Your task to perform on an android device: Go to Yahoo.com Image 0: 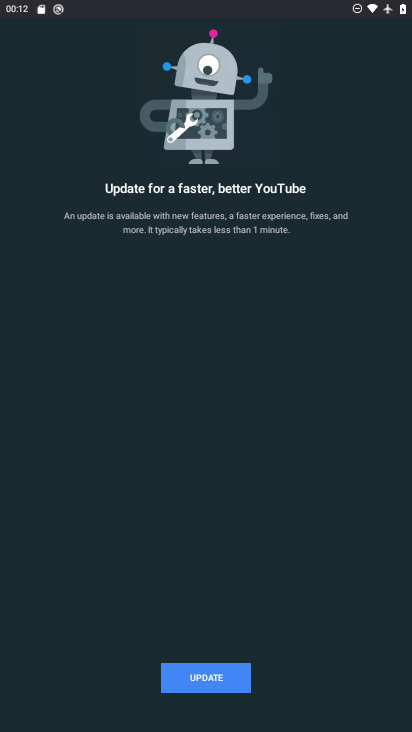
Step 0: press back button
Your task to perform on an android device: Go to Yahoo.com Image 1: 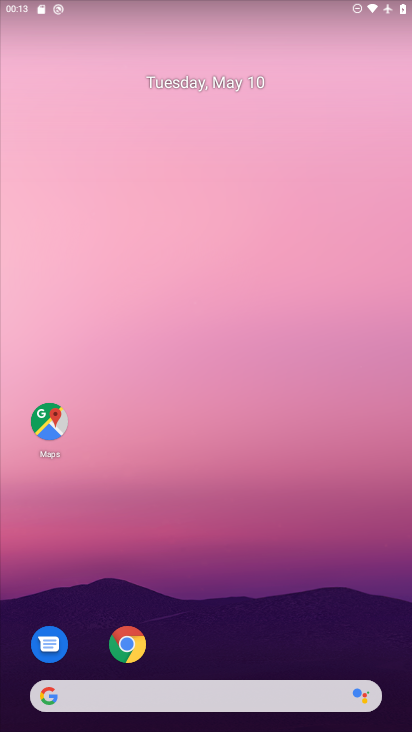
Step 1: click (136, 634)
Your task to perform on an android device: Go to Yahoo.com Image 2: 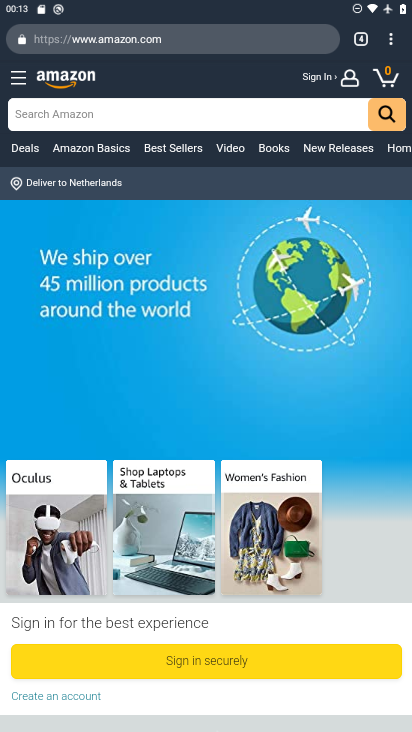
Step 2: click (354, 40)
Your task to perform on an android device: Go to Yahoo.com Image 3: 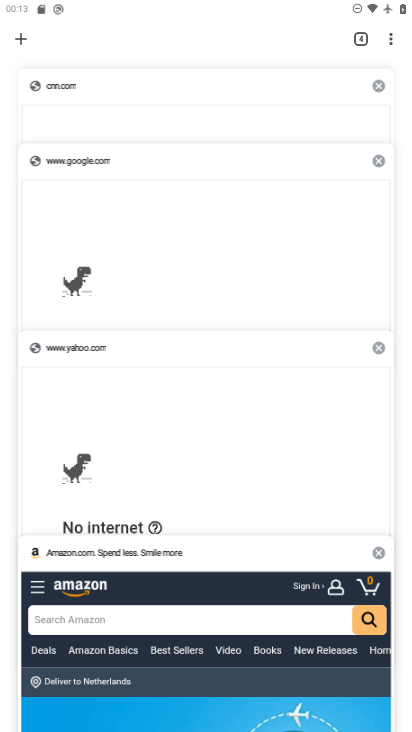
Step 3: click (21, 37)
Your task to perform on an android device: Go to Yahoo.com Image 4: 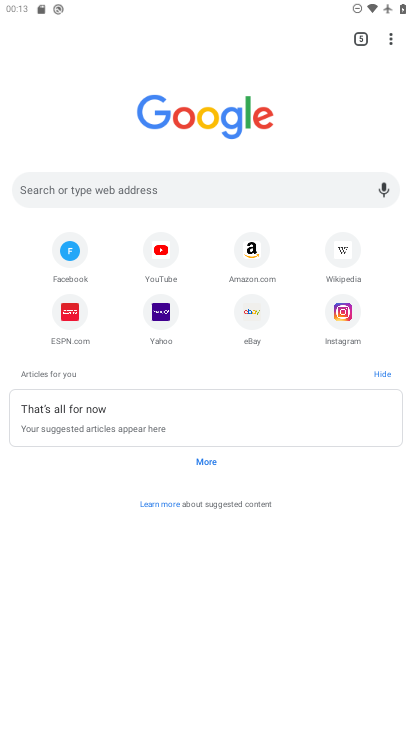
Step 4: click (150, 323)
Your task to perform on an android device: Go to Yahoo.com Image 5: 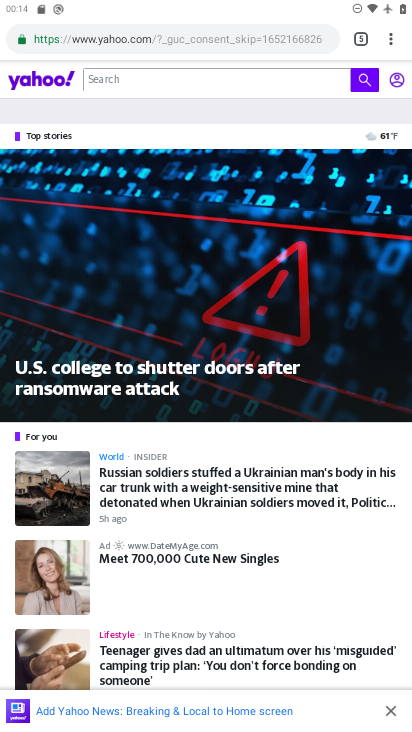
Step 5: task complete